Your task to perform on an android device: Empty the shopping cart on newegg. Search for apple airpods pro on newegg, select the first entry, add it to the cart, then select checkout. Image 0: 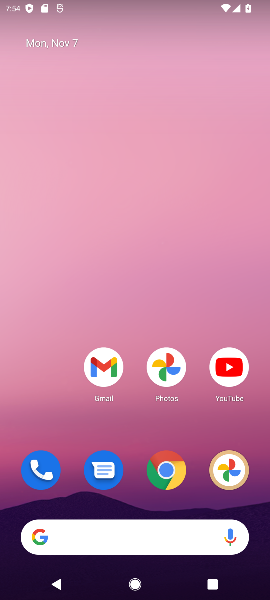
Step 0: click (156, 433)
Your task to perform on an android device: Empty the shopping cart on newegg. Search for apple airpods pro on newegg, select the first entry, add it to the cart, then select checkout. Image 1: 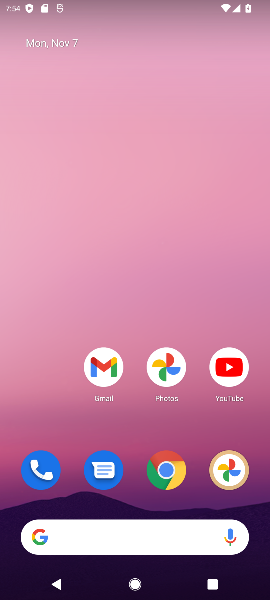
Step 1: click (168, 479)
Your task to perform on an android device: Empty the shopping cart on newegg. Search for apple airpods pro on newegg, select the first entry, add it to the cart, then select checkout. Image 2: 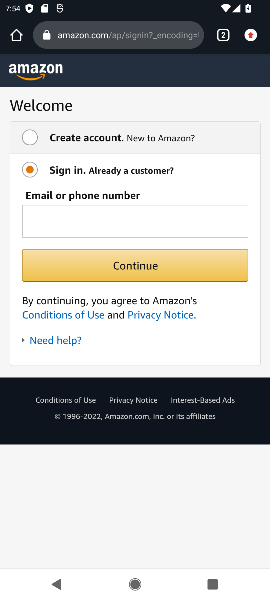
Step 2: click (88, 28)
Your task to perform on an android device: Empty the shopping cart on newegg. Search for apple airpods pro on newegg, select the first entry, add it to the cart, then select checkout. Image 3: 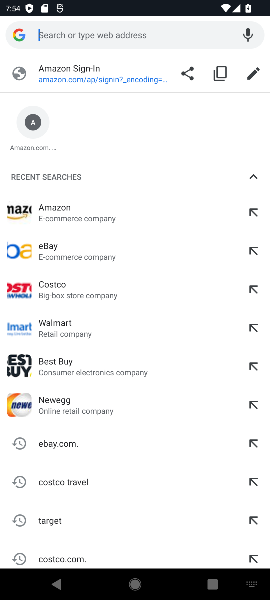
Step 3: type "newegg"
Your task to perform on an android device: Empty the shopping cart on newegg. Search for apple airpods pro on newegg, select the first entry, add it to the cart, then select checkout. Image 4: 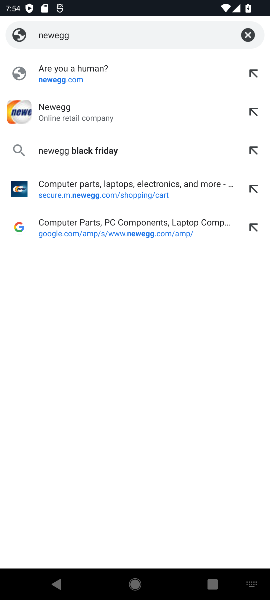
Step 4: click (107, 119)
Your task to perform on an android device: Empty the shopping cart on newegg. Search for apple airpods pro on newegg, select the first entry, add it to the cart, then select checkout. Image 5: 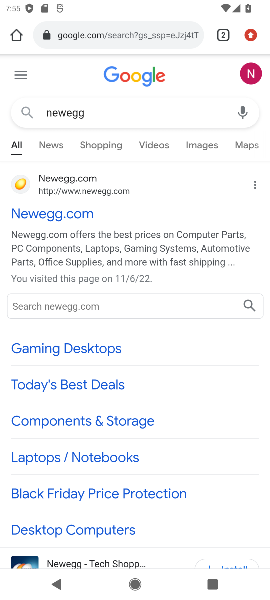
Step 5: click (23, 217)
Your task to perform on an android device: Empty the shopping cart on newegg. Search for apple airpods pro on newegg, select the first entry, add it to the cart, then select checkout. Image 6: 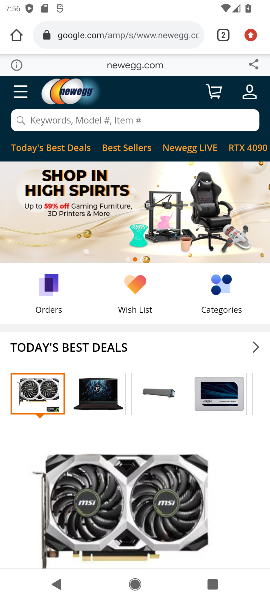
Step 6: click (101, 121)
Your task to perform on an android device: Empty the shopping cart on newegg. Search for apple airpods pro on newegg, select the first entry, add it to the cart, then select checkout. Image 7: 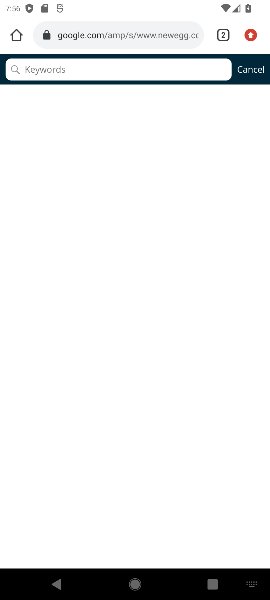
Step 7: type "apple airpods"
Your task to perform on an android device: Empty the shopping cart on newegg. Search for apple airpods pro on newegg, select the first entry, add it to the cart, then select checkout. Image 8: 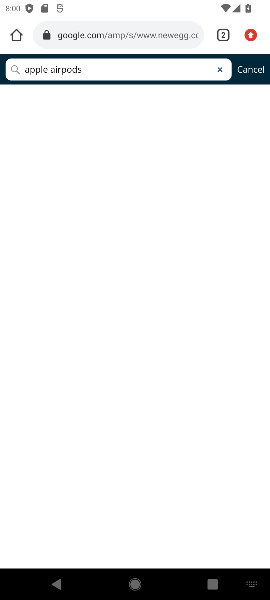
Step 8: task complete